Your task to perform on an android device: When is my next appointment? Image 0: 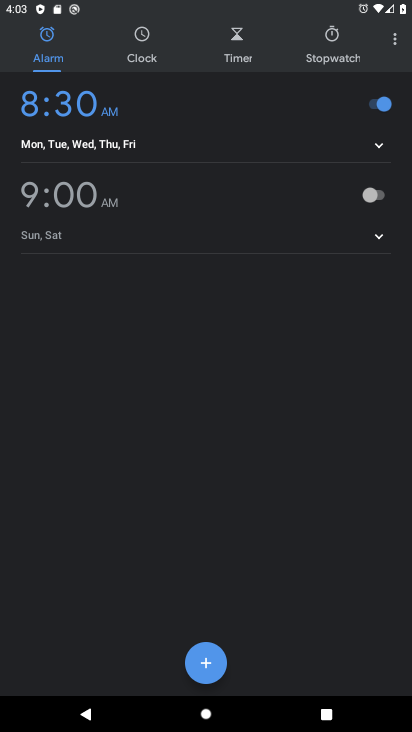
Step 0: press home button
Your task to perform on an android device: When is my next appointment? Image 1: 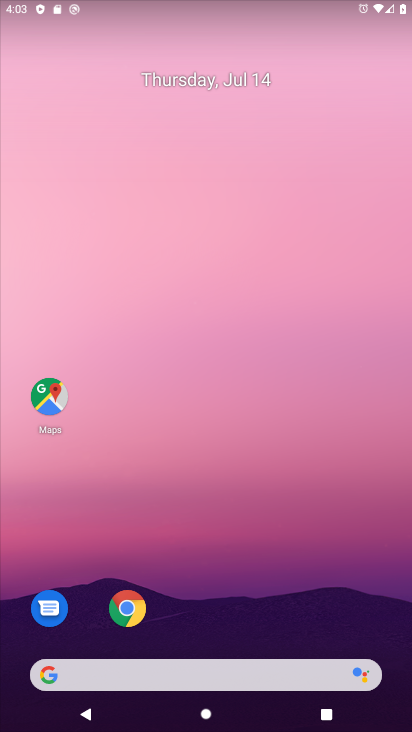
Step 1: drag from (317, 553) to (371, 52)
Your task to perform on an android device: When is my next appointment? Image 2: 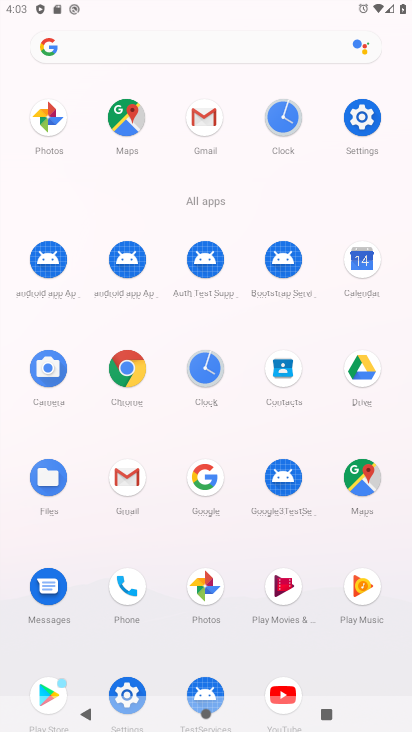
Step 2: click (366, 266)
Your task to perform on an android device: When is my next appointment? Image 3: 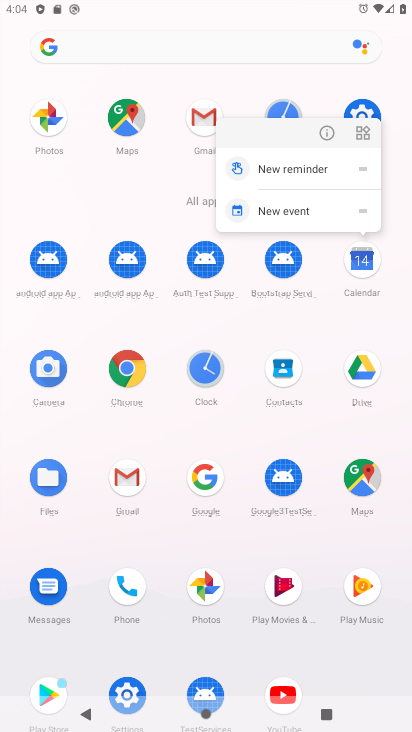
Step 3: click (360, 271)
Your task to perform on an android device: When is my next appointment? Image 4: 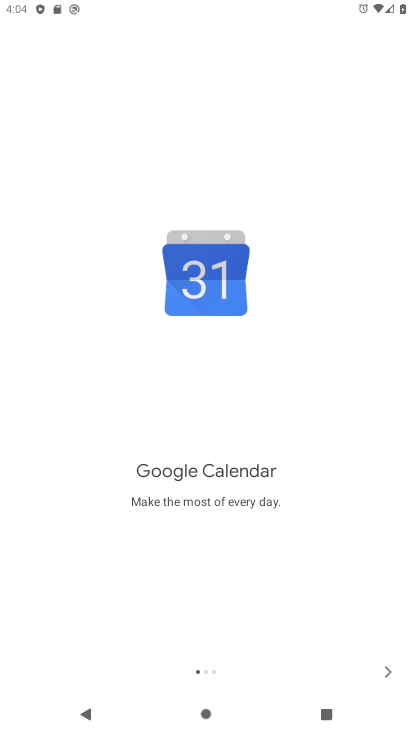
Step 4: click (370, 671)
Your task to perform on an android device: When is my next appointment? Image 5: 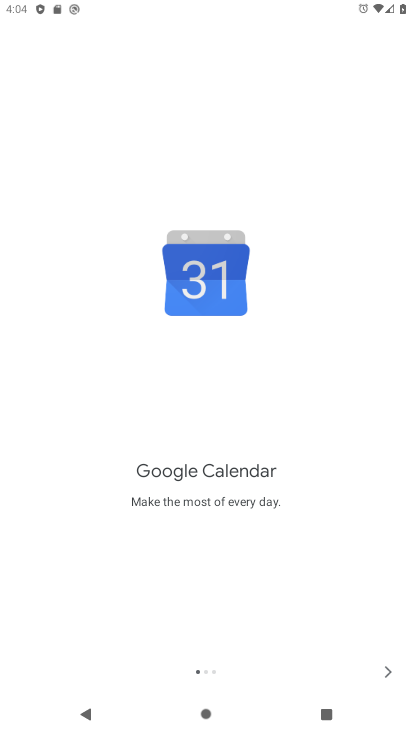
Step 5: click (401, 671)
Your task to perform on an android device: When is my next appointment? Image 6: 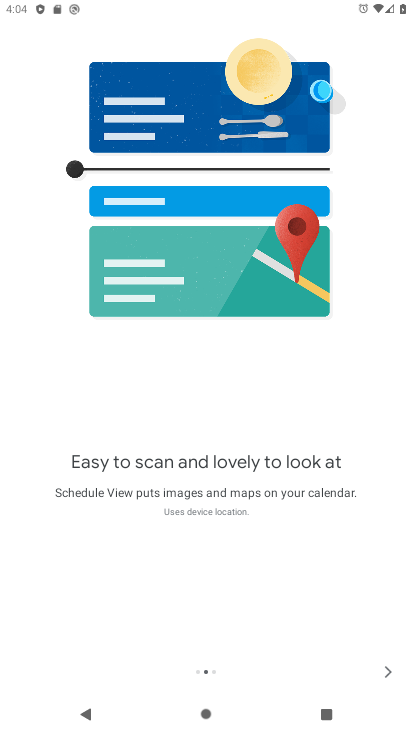
Step 6: click (401, 671)
Your task to perform on an android device: When is my next appointment? Image 7: 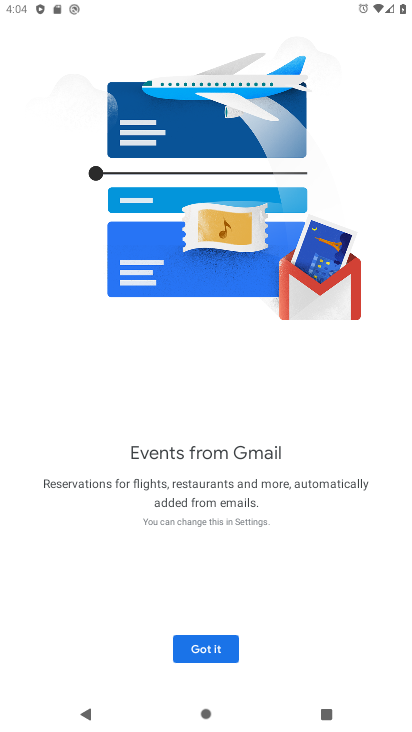
Step 7: click (210, 644)
Your task to perform on an android device: When is my next appointment? Image 8: 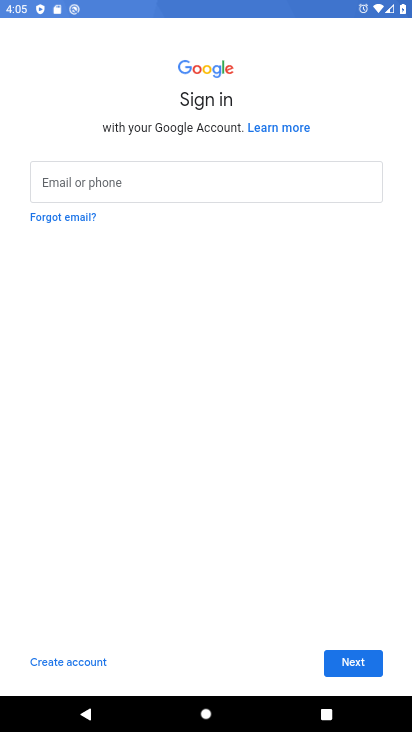
Step 8: click (367, 661)
Your task to perform on an android device: When is my next appointment? Image 9: 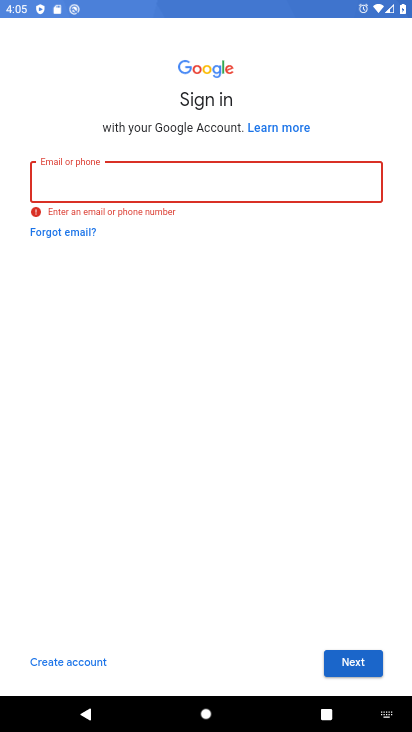
Step 9: task complete